Your task to perform on an android device: open app "YouTube Kids" (install if not already installed) and enter user name: "atmospheric@gmail.com" and password: "raze" Image 0: 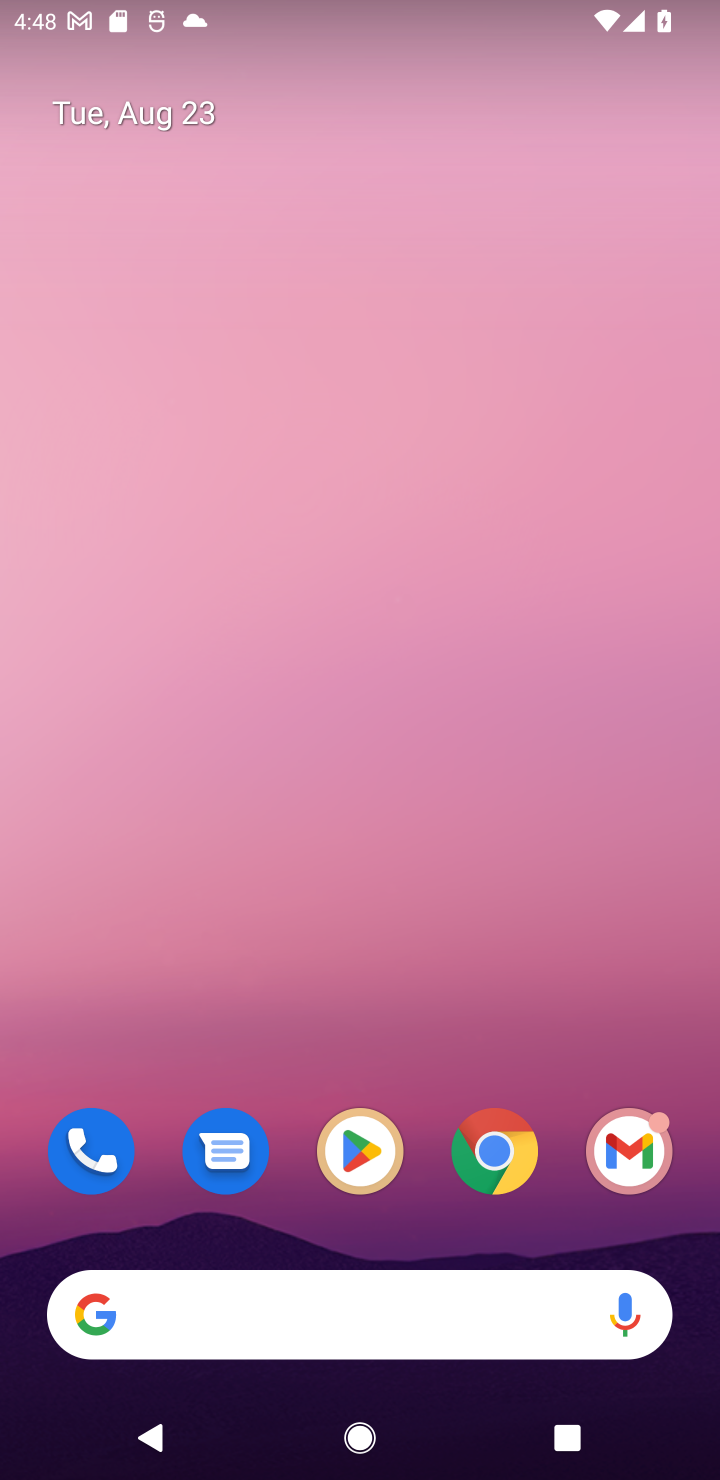
Step 0: click (385, 1135)
Your task to perform on an android device: open app "YouTube Kids" (install if not already installed) and enter user name: "atmospheric@gmail.com" and password: "raze" Image 1: 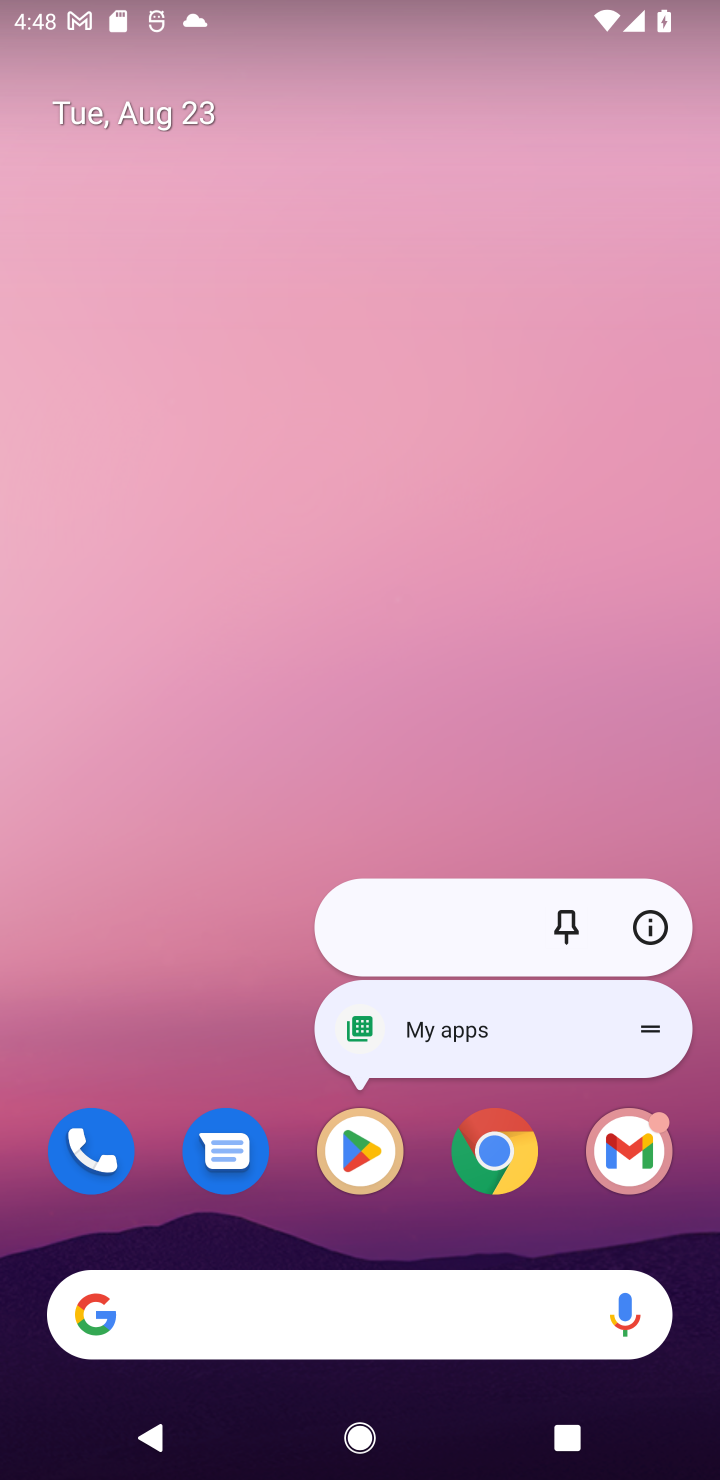
Step 1: click (364, 1159)
Your task to perform on an android device: open app "YouTube Kids" (install if not already installed) and enter user name: "atmospheric@gmail.com" and password: "raze" Image 2: 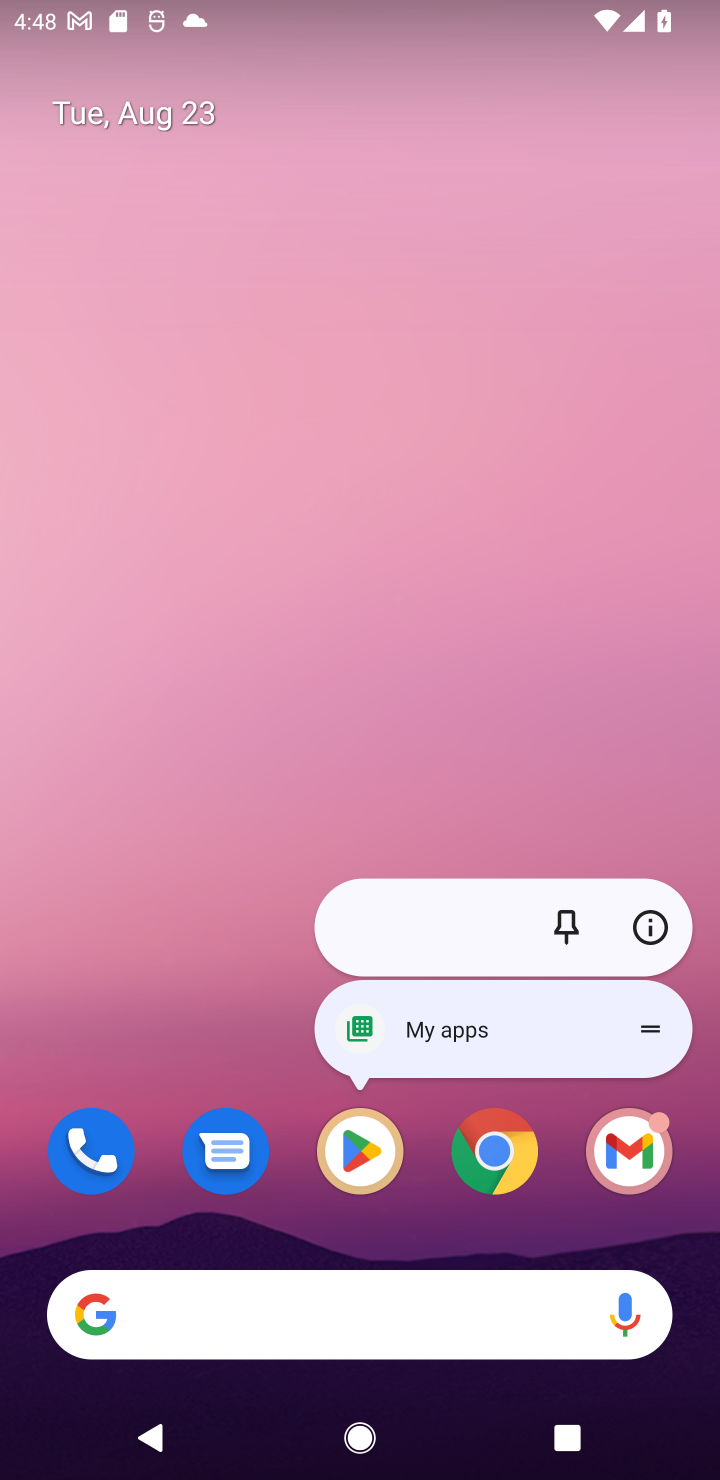
Step 2: click (347, 1156)
Your task to perform on an android device: open app "YouTube Kids" (install if not already installed) and enter user name: "atmospheric@gmail.com" and password: "raze" Image 3: 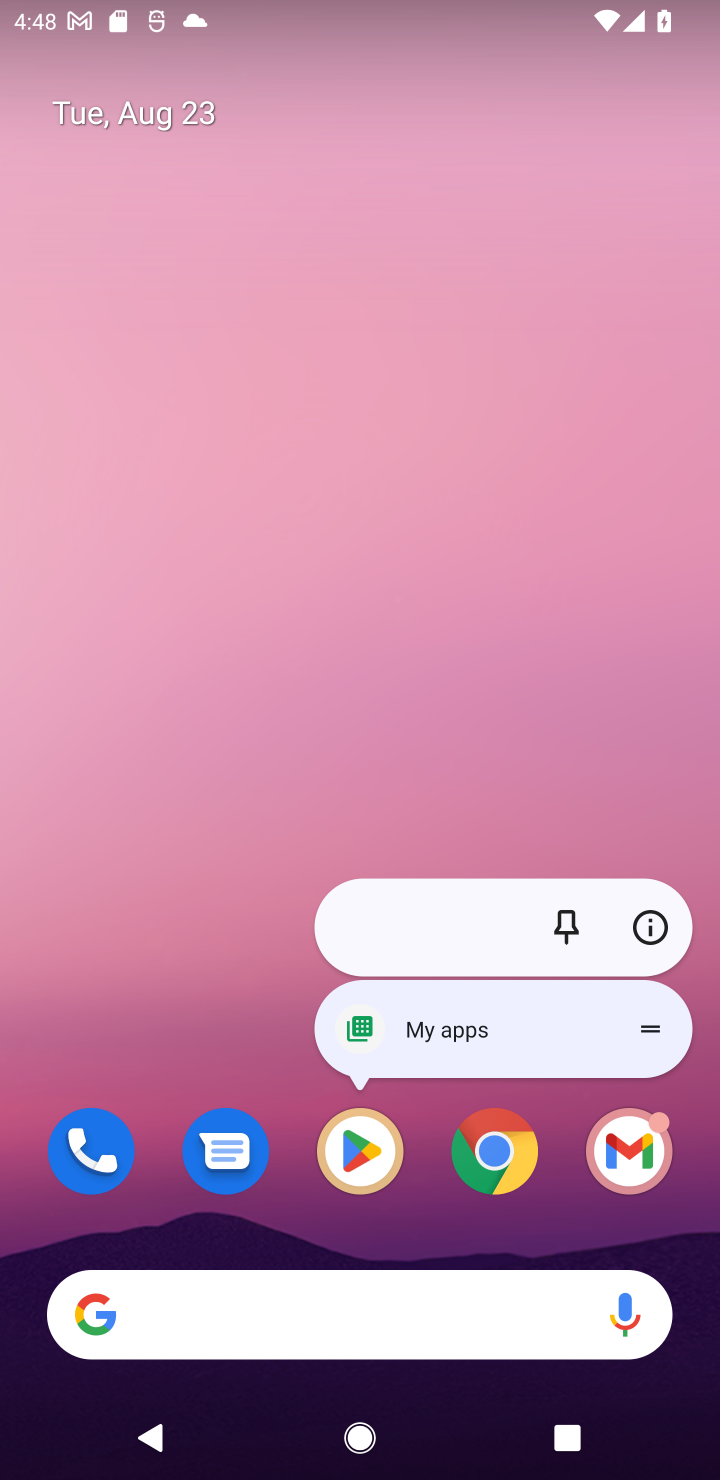
Step 3: click (347, 1171)
Your task to perform on an android device: open app "YouTube Kids" (install if not already installed) and enter user name: "atmospheric@gmail.com" and password: "raze" Image 4: 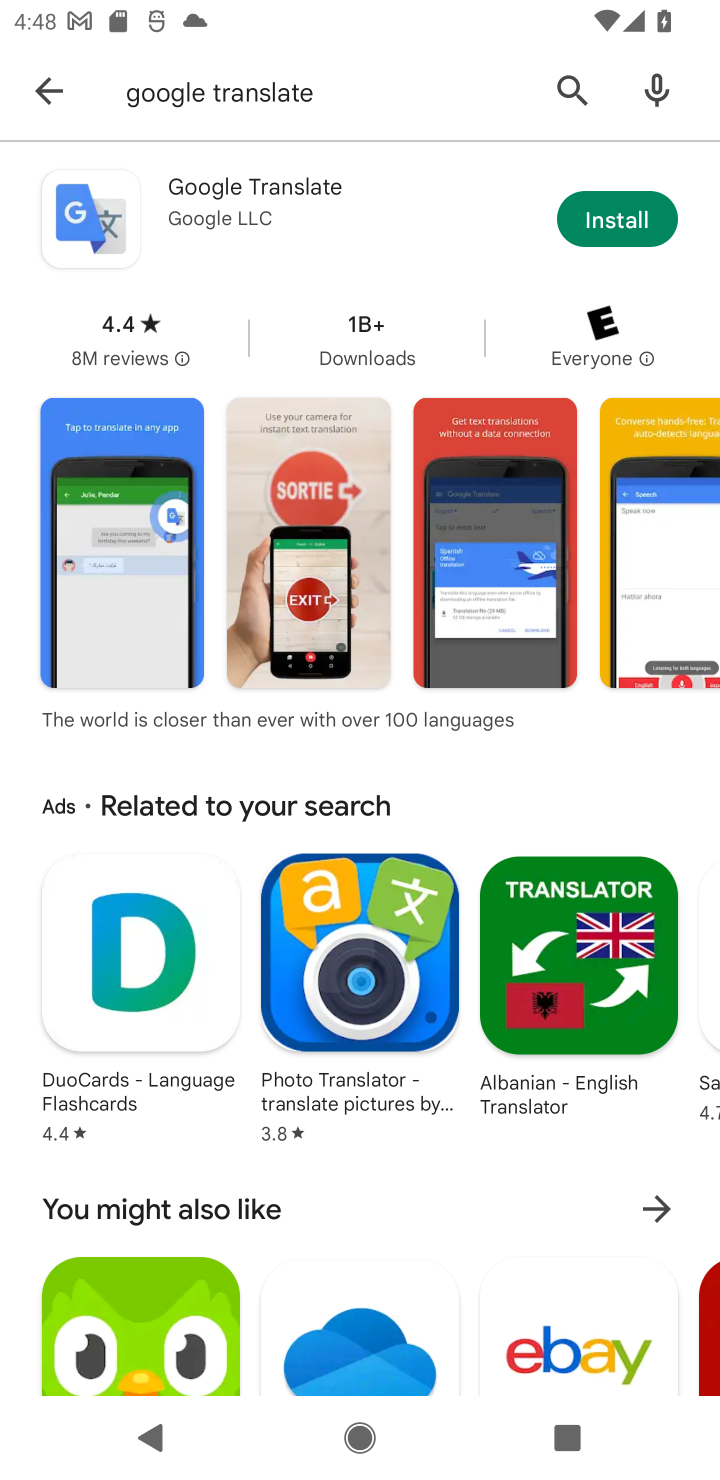
Step 4: click (562, 63)
Your task to perform on an android device: open app "YouTube Kids" (install if not already installed) and enter user name: "atmospheric@gmail.com" and password: "raze" Image 5: 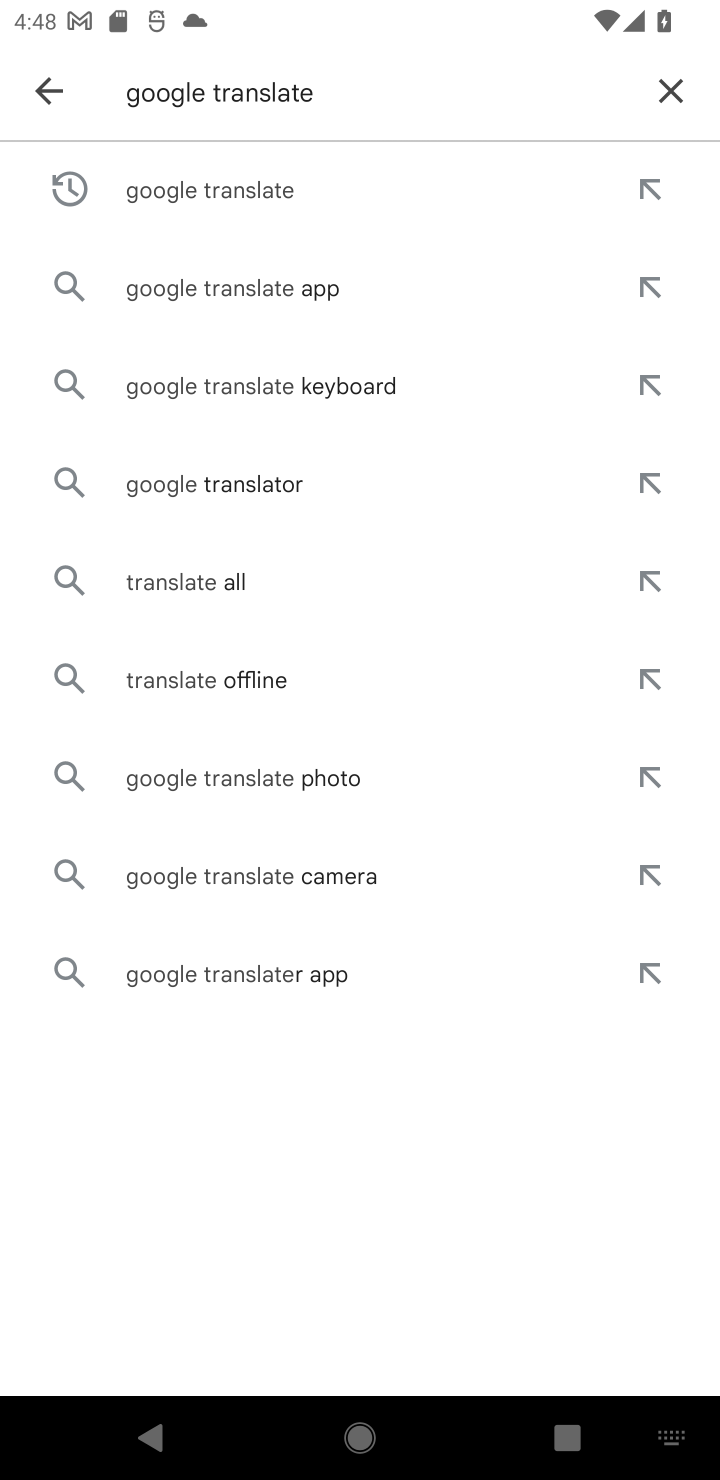
Step 5: click (659, 81)
Your task to perform on an android device: open app "YouTube Kids" (install if not already installed) and enter user name: "atmospheric@gmail.com" and password: "raze" Image 6: 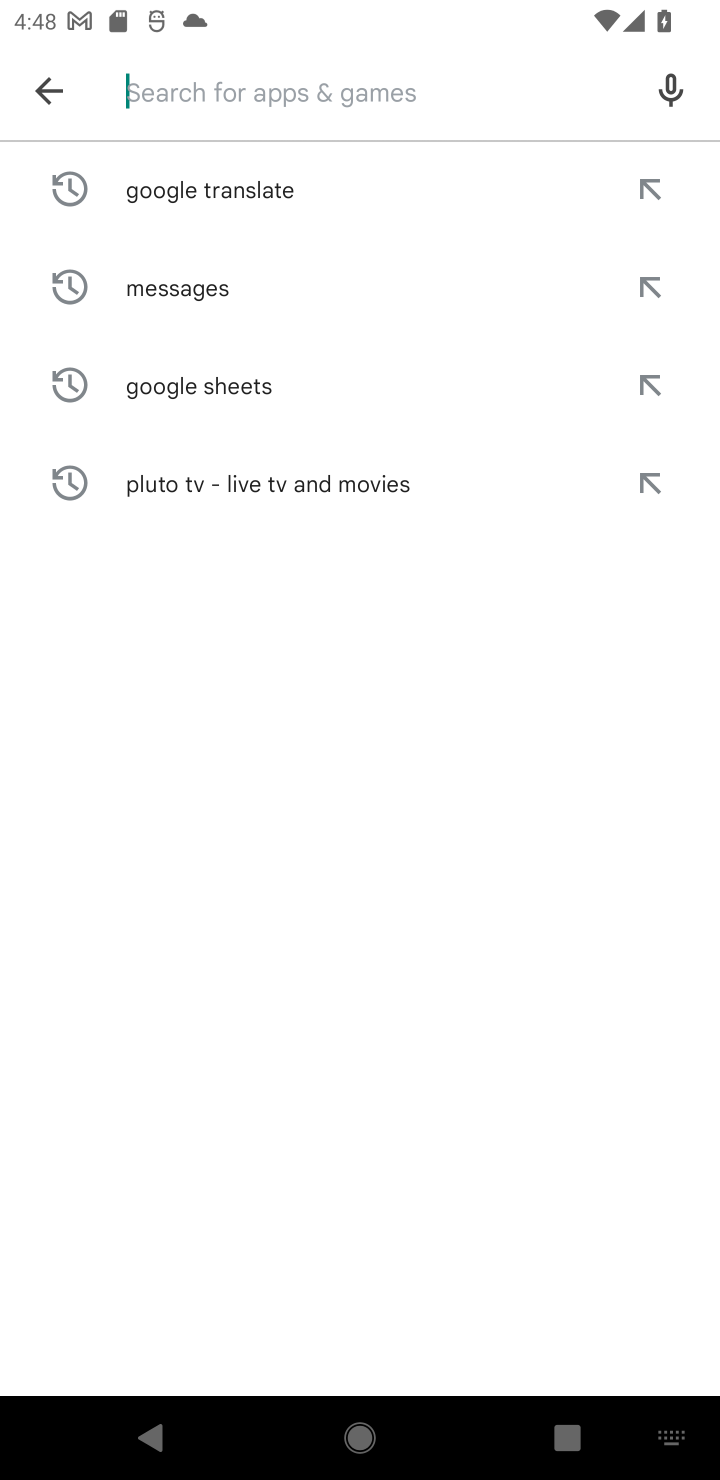
Step 6: type "YouTube Kids"
Your task to perform on an android device: open app "YouTube Kids" (install if not already installed) and enter user name: "atmospheric@gmail.com" and password: "raze" Image 7: 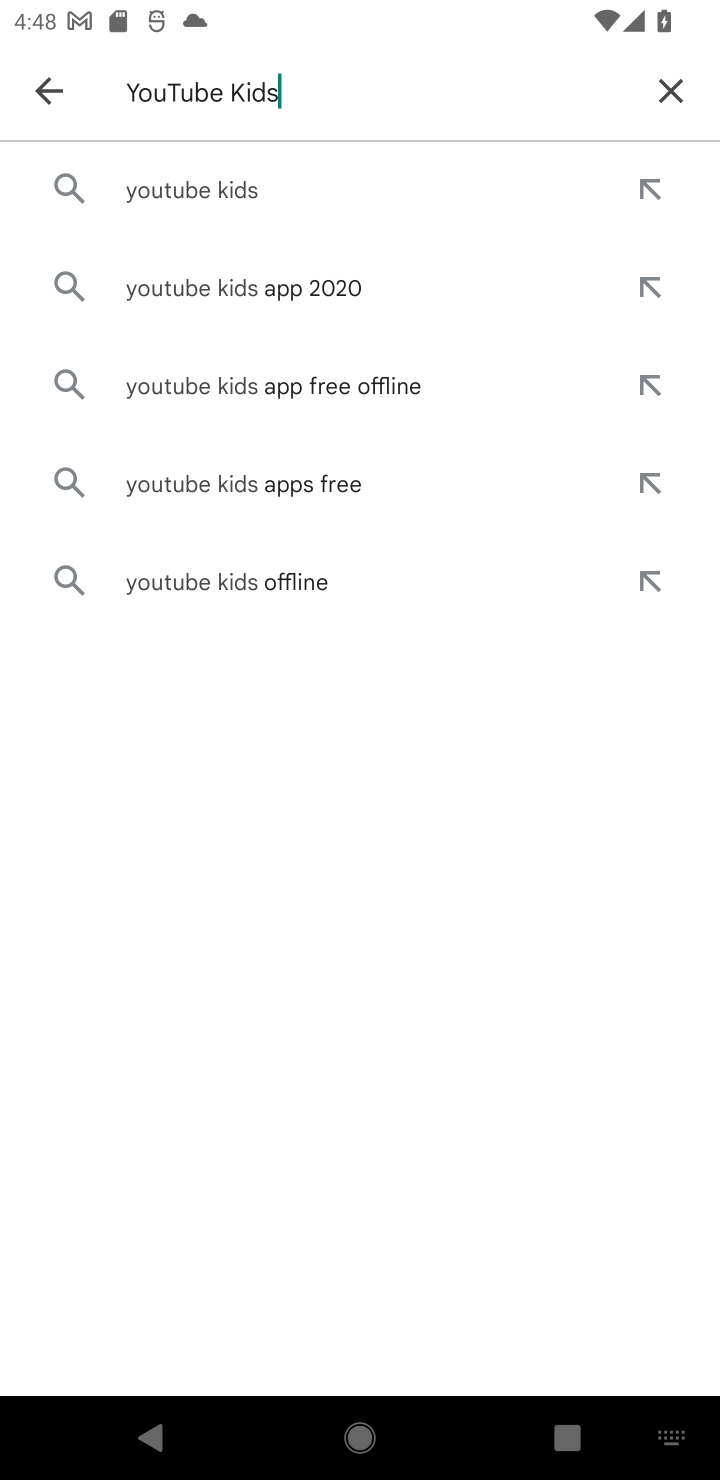
Step 7: click (154, 189)
Your task to perform on an android device: open app "YouTube Kids" (install if not already installed) and enter user name: "atmospheric@gmail.com" and password: "raze" Image 8: 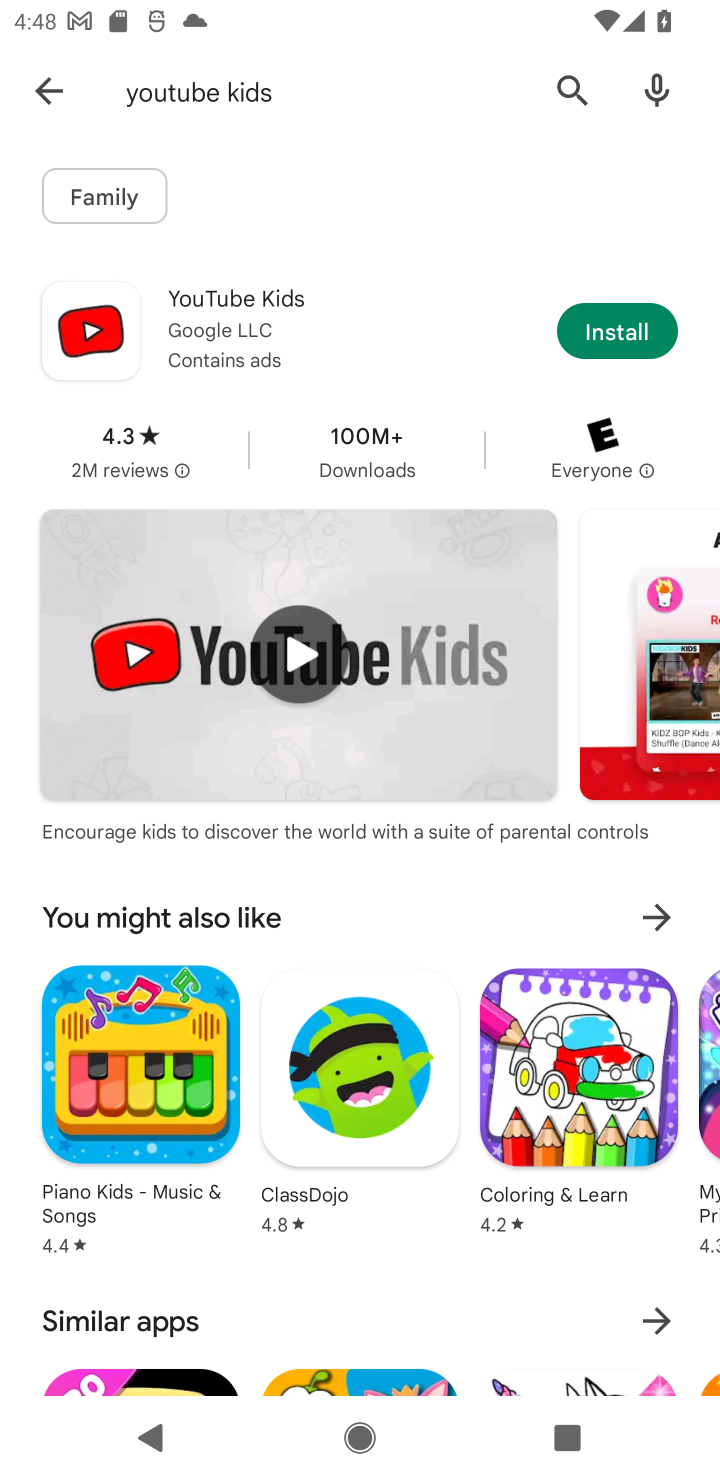
Step 8: click (626, 322)
Your task to perform on an android device: open app "YouTube Kids" (install if not already installed) and enter user name: "atmospheric@gmail.com" and password: "raze" Image 9: 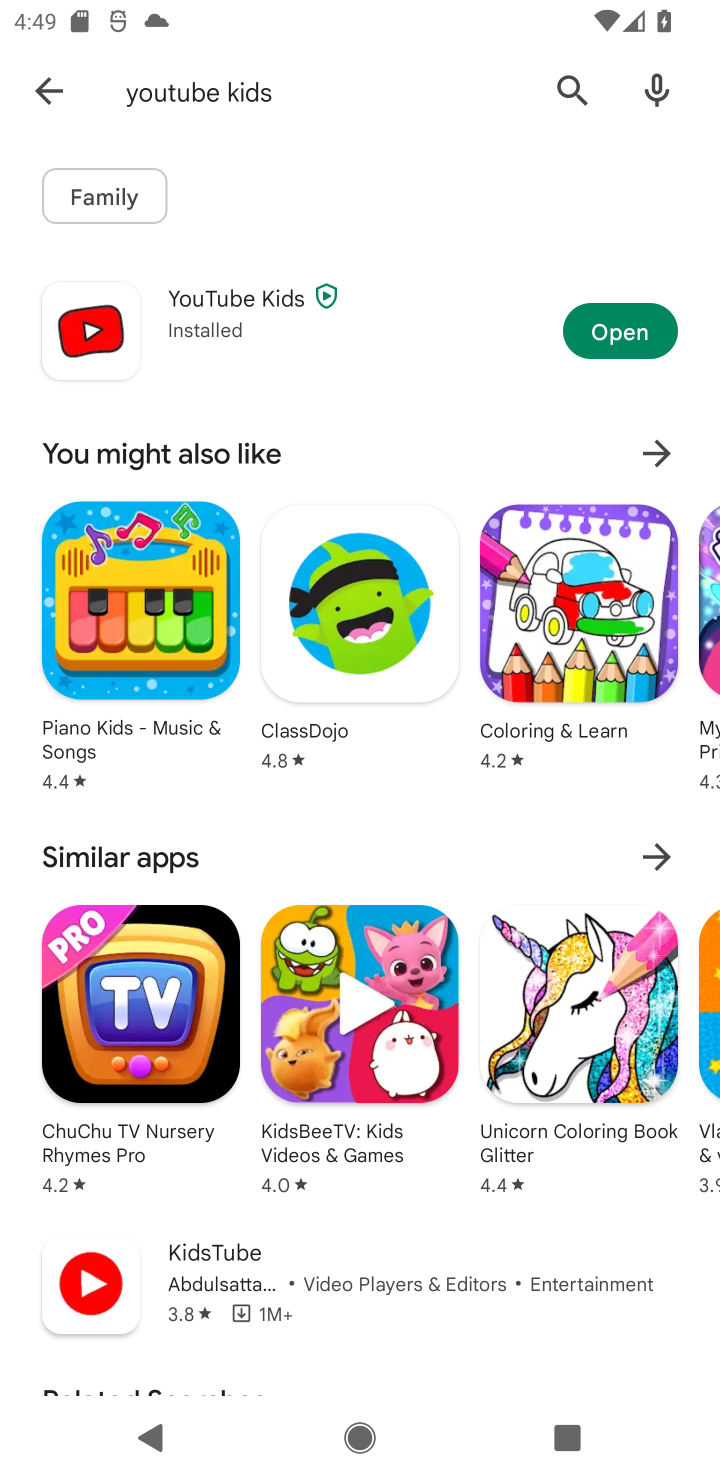
Step 9: click (617, 331)
Your task to perform on an android device: open app "YouTube Kids" (install if not already installed) and enter user name: "atmospheric@gmail.com" and password: "raze" Image 10: 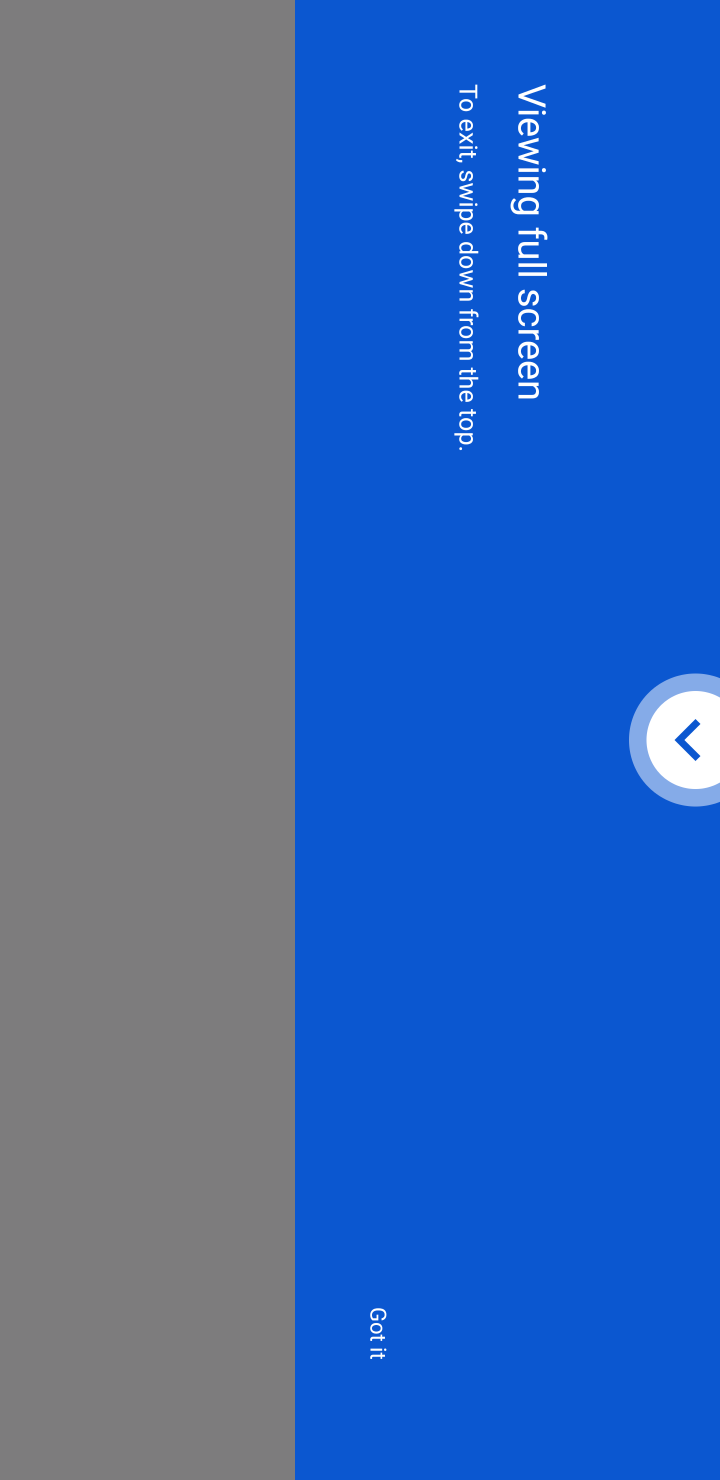
Step 10: click (383, 1325)
Your task to perform on an android device: open app "YouTube Kids" (install if not already installed) and enter user name: "atmospheric@gmail.com" and password: "raze" Image 11: 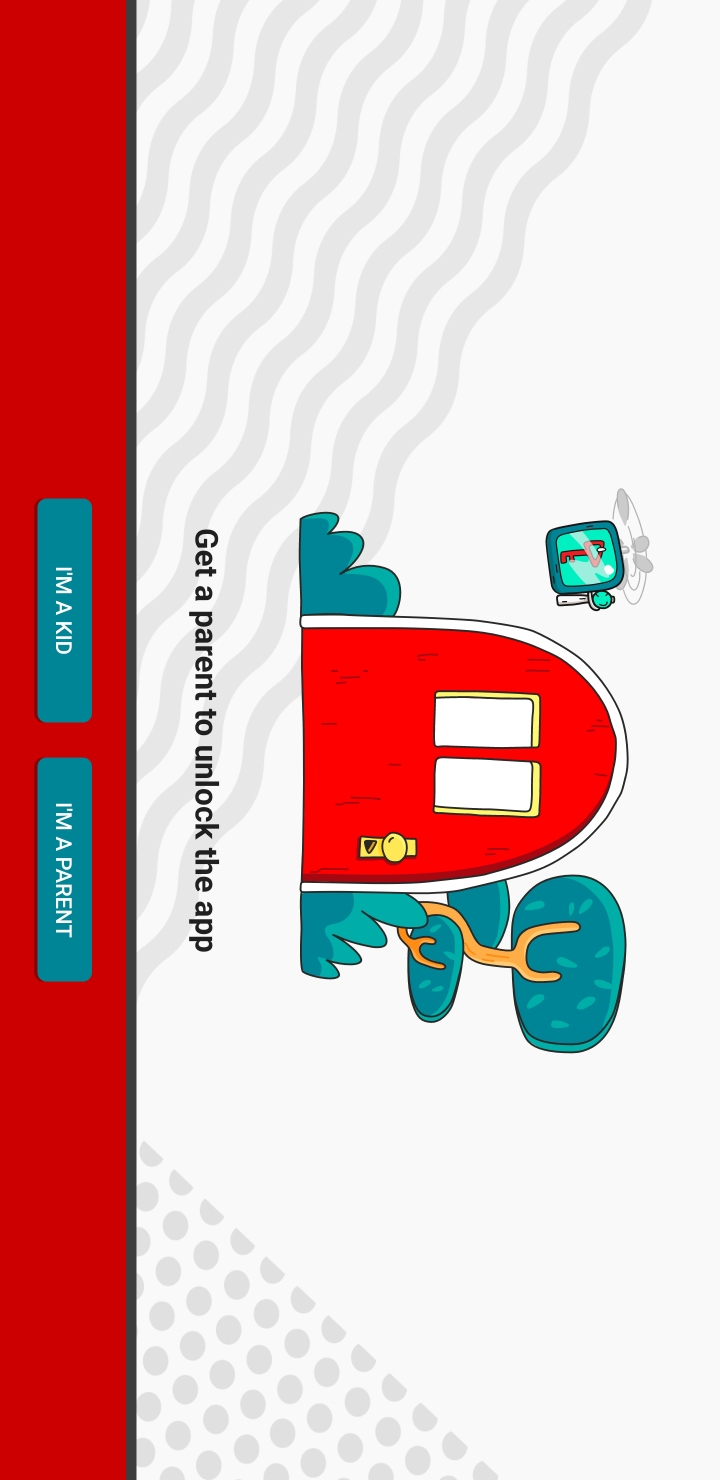
Step 11: task complete